Your task to perform on an android device: Open accessibility settings Image 0: 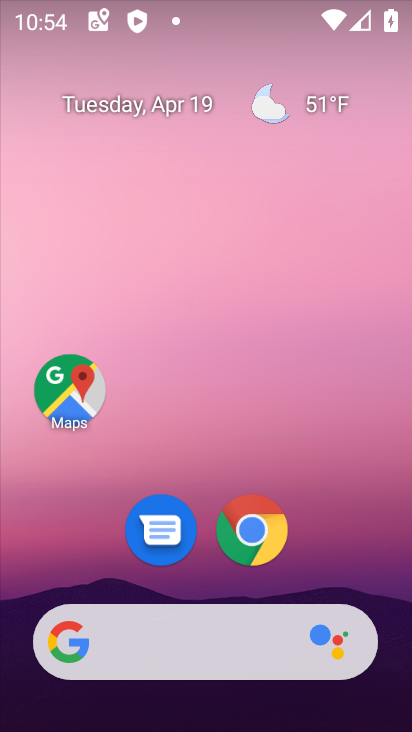
Step 0: drag from (358, 555) to (341, 110)
Your task to perform on an android device: Open accessibility settings Image 1: 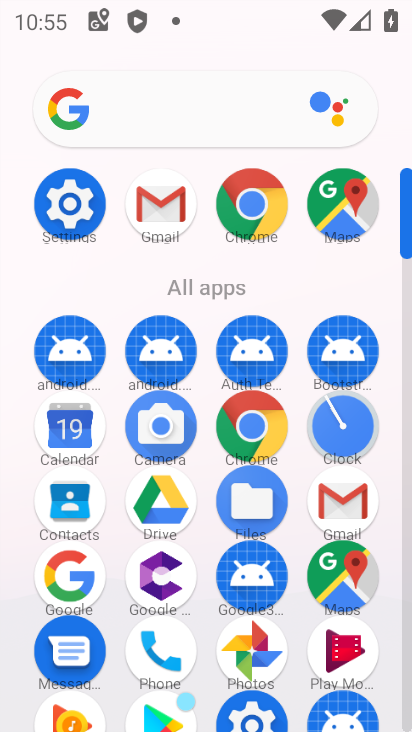
Step 1: click (78, 195)
Your task to perform on an android device: Open accessibility settings Image 2: 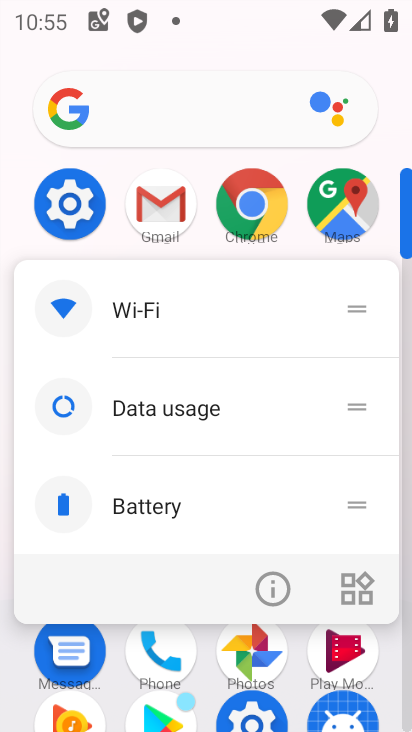
Step 2: click (78, 195)
Your task to perform on an android device: Open accessibility settings Image 3: 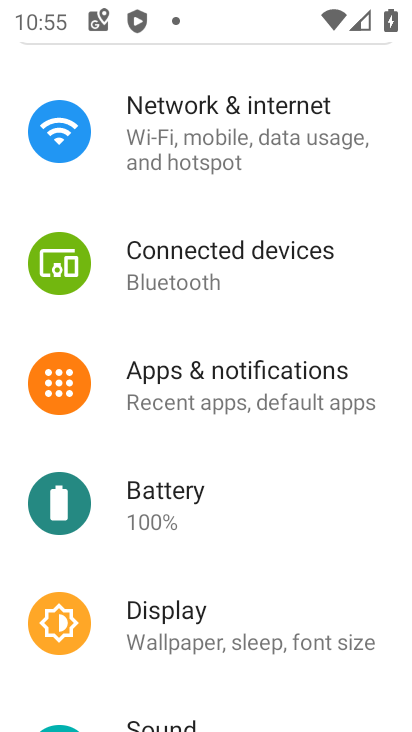
Step 3: drag from (269, 582) to (244, 118)
Your task to perform on an android device: Open accessibility settings Image 4: 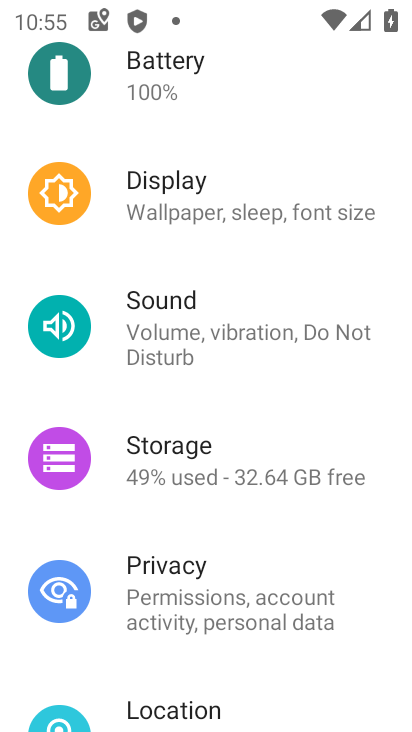
Step 4: drag from (239, 532) to (232, 101)
Your task to perform on an android device: Open accessibility settings Image 5: 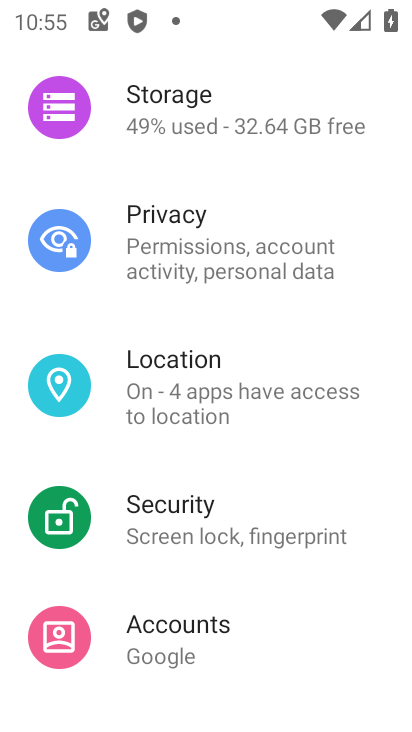
Step 5: drag from (285, 617) to (251, 171)
Your task to perform on an android device: Open accessibility settings Image 6: 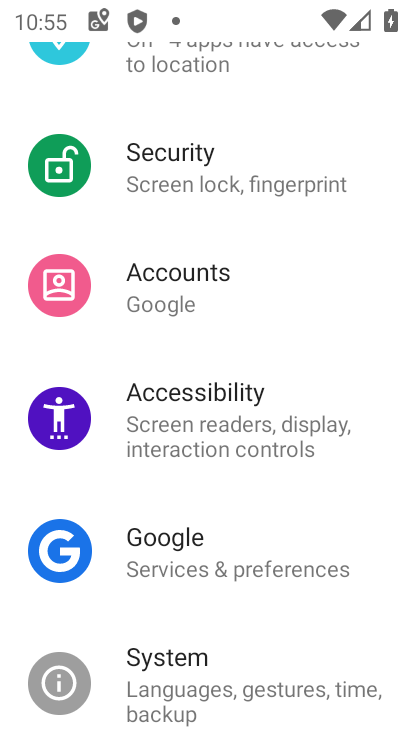
Step 6: click (233, 409)
Your task to perform on an android device: Open accessibility settings Image 7: 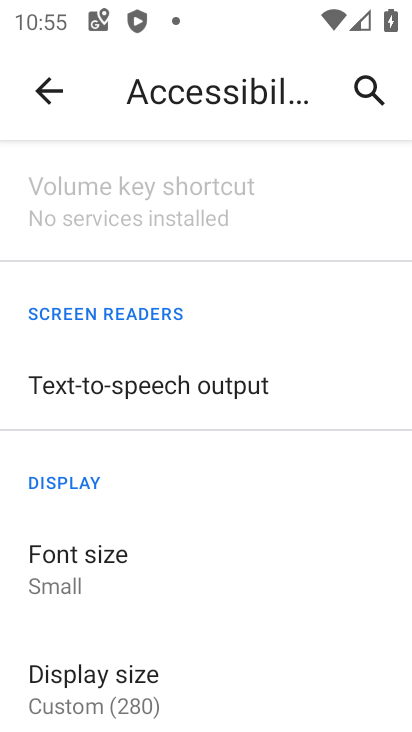
Step 7: task complete